Your task to perform on an android device: Set the phone to "Do not disturb". Image 0: 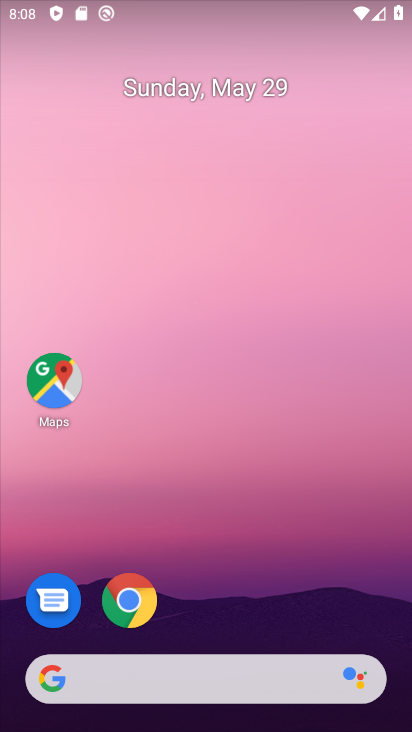
Step 0: drag from (190, 34) to (195, 620)
Your task to perform on an android device: Set the phone to "Do not disturb". Image 1: 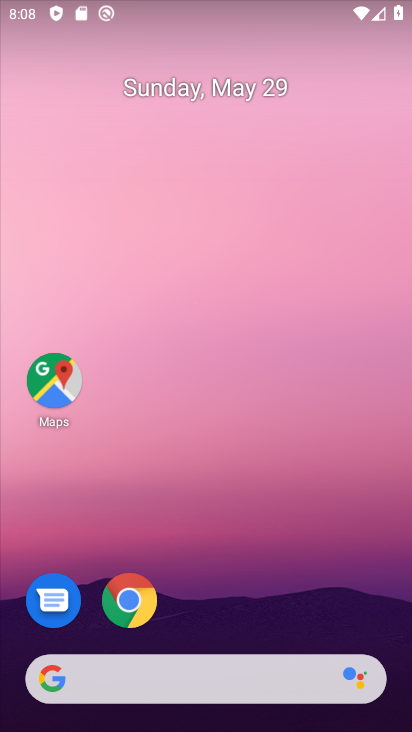
Step 1: drag from (139, 12) to (143, 551)
Your task to perform on an android device: Set the phone to "Do not disturb". Image 2: 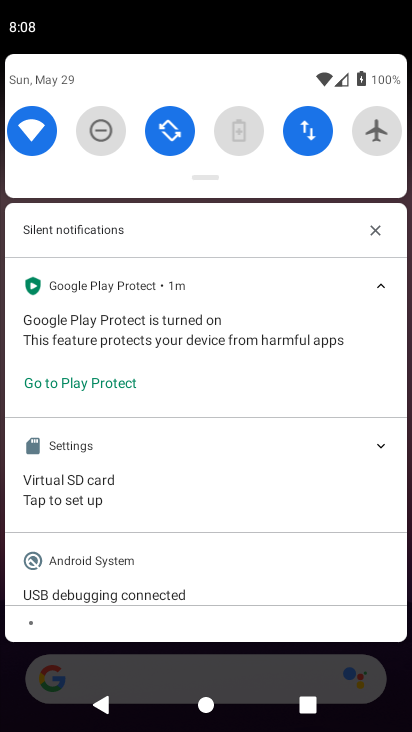
Step 2: drag from (150, 179) to (215, 638)
Your task to perform on an android device: Set the phone to "Do not disturb". Image 3: 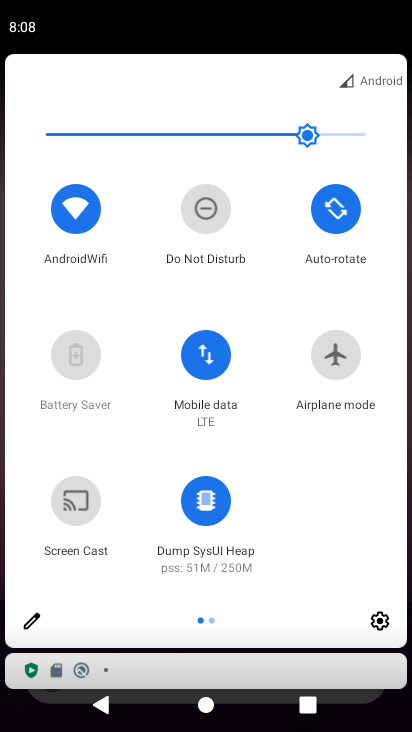
Step 3: click (217, 209)
Your task to perform on an android device: Set the phone to "Do not disturb". Image 4: 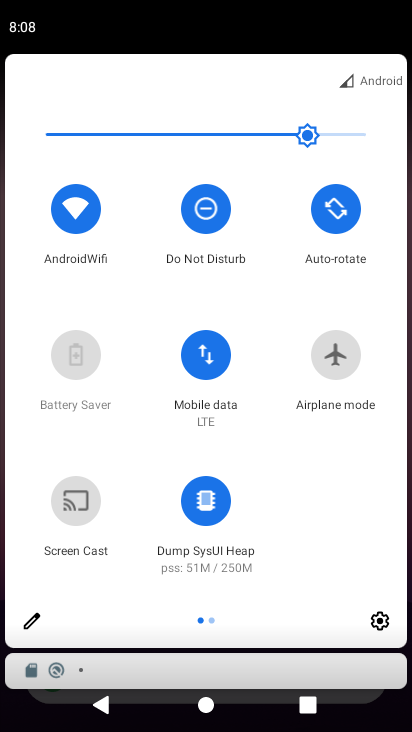
Step 4: task complete